Your task to perform on an android device: Clear all items from cart on target. Add amazon basics triple a to the cart on target Image 0: 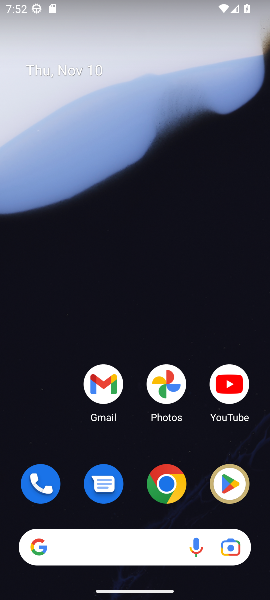
Step 0: click (163, 487)
Your task to perform on an android device: Clear all items from cart on target. Add amazon basics triple a to the cart on target Image 1: 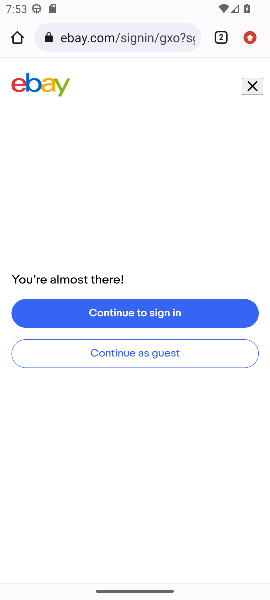
Step 1: click (101, 39)
Your task to perform on an android device: Clear all items from cart on target. Add amazon basics triple a to the cart on target Image 2: 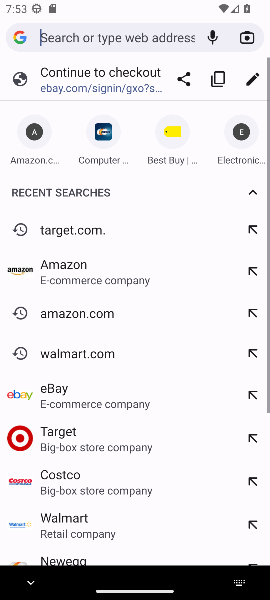
Step 2: click (75, 238)
Your task to perform on an android device: Clear all items from cart on target. Add amazon basics triple a to the cart on target Image 3: 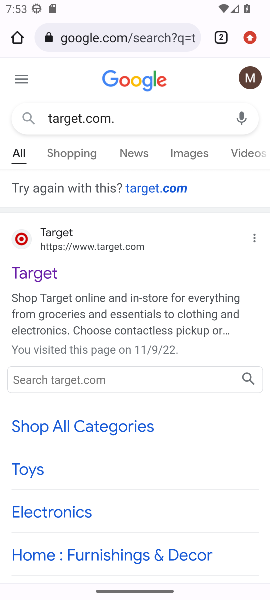
Step 3: click (44, 257)
Your task to perform on an android device: Clear all items from cart on target. Add amazon basics triple a to the cart on target Image 4: 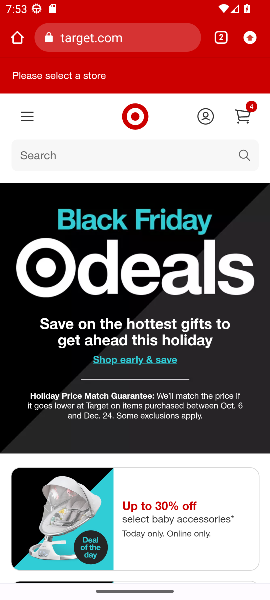
Step 4: click (244, 107)
Your task to perform on an android device: Clear all items from cart on target. Add amazon basics triple a to the cart on target Image 5: 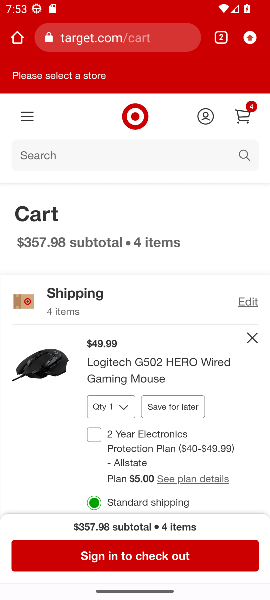
Step 5: click (251, 336)
Your task to perform on an android device: Clear all items from cart on target. Add amazon basics triple a to the cart on target Image 6: 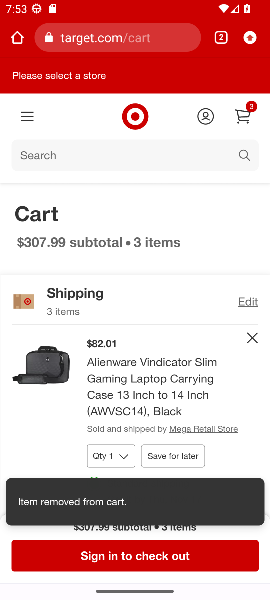
Step 6: click (251, 340)
Your task to perform on an android device: Clear all items from cart on target. Add amazon basics triple a to the cart on target Image 7: 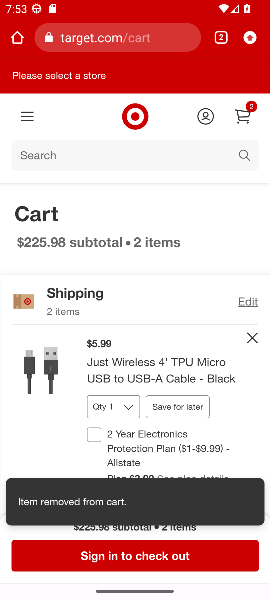
Step 7: drag from (120, 396) to (136, 243)
Your task to perform on an android device: Clear all items from cart on target. Add amazon basics triple a to the cart on target Image 8: 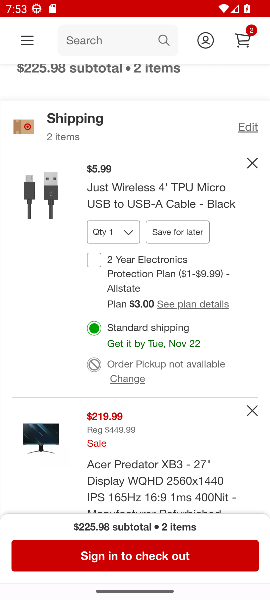
Step 8: click (247, 160)
Your task to perform on an android device: Clear all items from cart on target. Add amazon basics triple a to the cart on target Image 9: 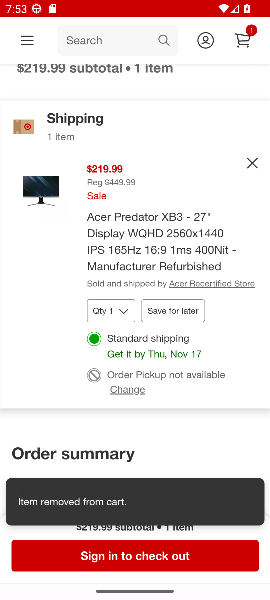
Step 9: click (247, 160)
Your task to perform on an android device: Clear all items from cart on target. Add amazon basics triple a to the cart on target Image 10: 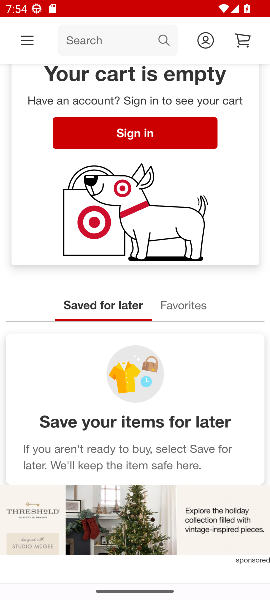
Step 10: drag from (204, 253) to (201, 455)
Your task to perform on an android device: Clear all items from cart on target. Add amazon basics triple a to the cart on target Image 11: 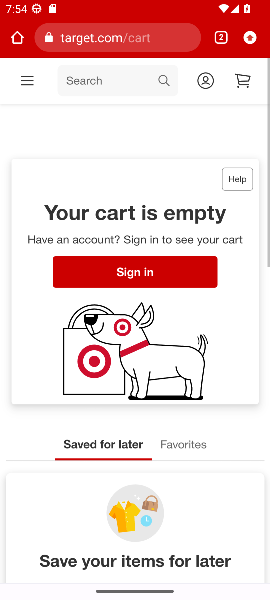
Step 11: click (166, 79)
Your task to perform on an android device: Clear all items from cart on target. Add amazon basics triple a to the cart on target Image 12: 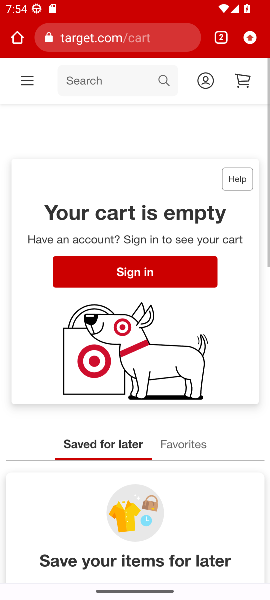
Step 12: click (163, 81)
Your task to perform on an android device: Clear all items from cart on target. Add amazon basics triple a to the cart on target Image 13: 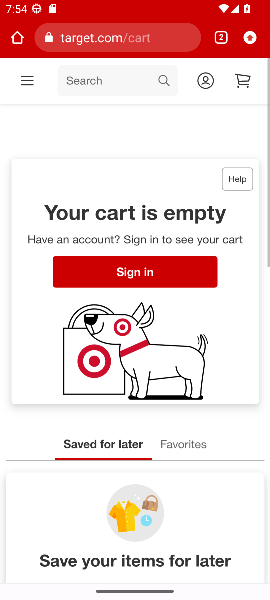
Step 13: click (128, 79)
Your task to perform on an android device: Clear all items from cart on target. Add amazon basics triple a to the cart on target Image 14: 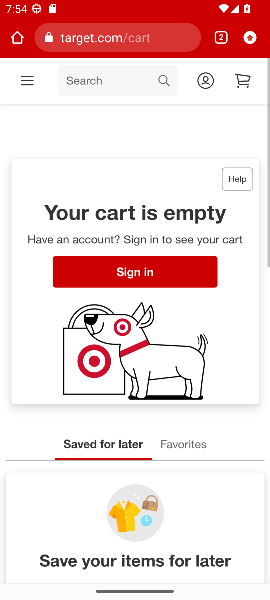
Step 14: click (82, 79)
Your task to perform on an android device: Clear all items from cart on target. Add amazon basics triple a to the cart on target Image 15: 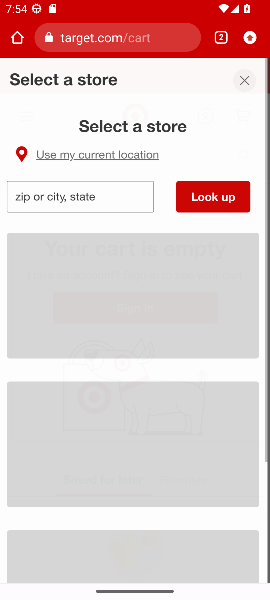
Step 15: click (246, 84)
Your task to perform on an android device: Clear all items from cart on target. Add amazon basics triple a to the cart on target Image 16: 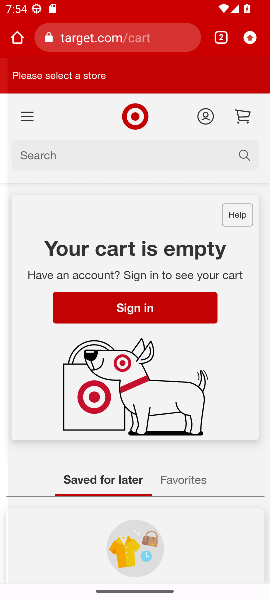
Step 16: click (68, 152)
Your task to perform on an android device: Clear all items from cart on target. Add amazon basics triple a to the cart on target Image 17: 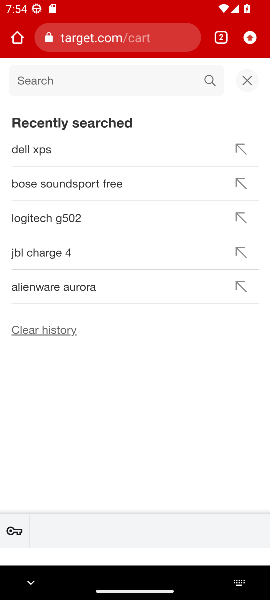
Step 17: type "amazon basics triple a"
Your task to perform on an android device: Clear all items from cart on target. Add amazon basics triple a to the cart on target Image 18: 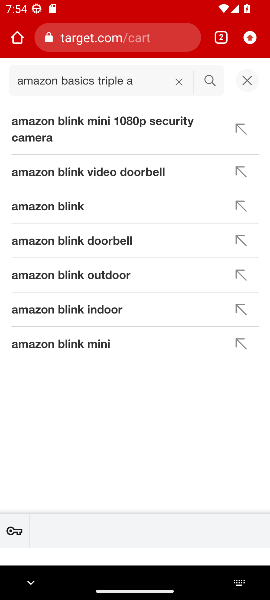
Step 18: click (206, 79)
Your task to perform on an android device: Clear all items from cart on target. Add amazon basics triple a to the cart on target Image 19: 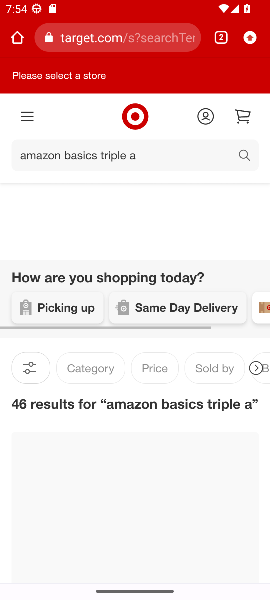
Step 19: task complete